Your task to perform on an android device: toggle translation in the chrome app Image 0: 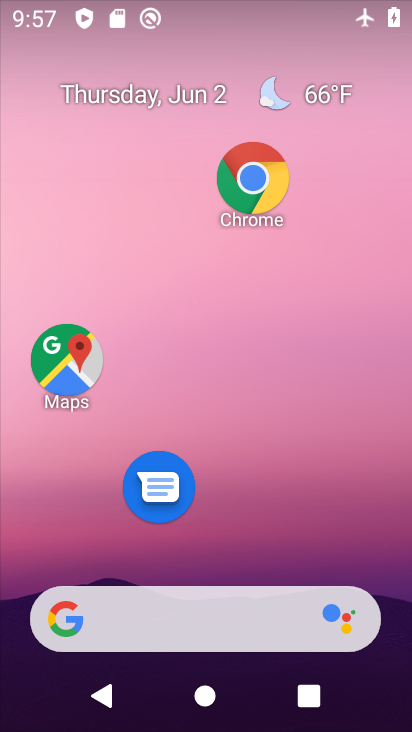
Step 0: click (254, 180)
Your task to perform on an android device: toggle translation in the chrome app Image 1: 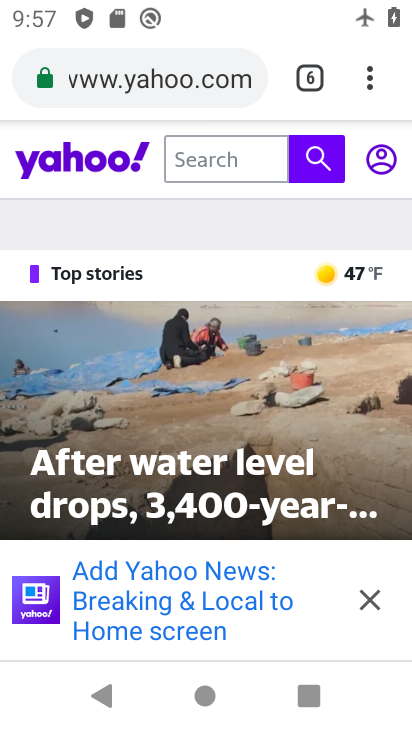
Step 1: click (368, 83)
Your task to perform on an android device: toggle translation in the chrome app Image 2: 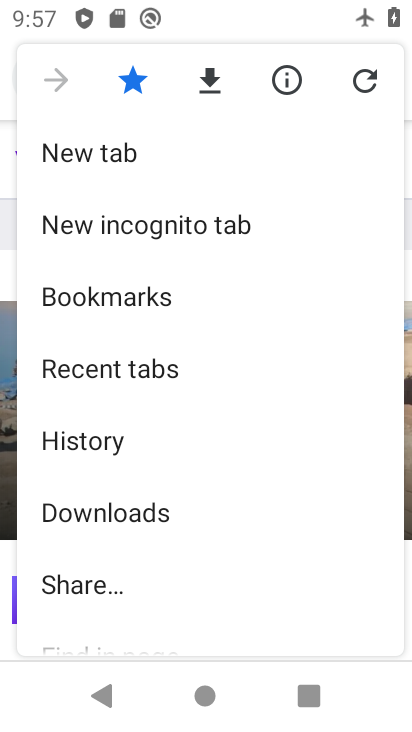
Step 2: drag from (147, 616) to (171, 219)
Your task to perform on an android device: toggle translation in the chrome app Image 3: 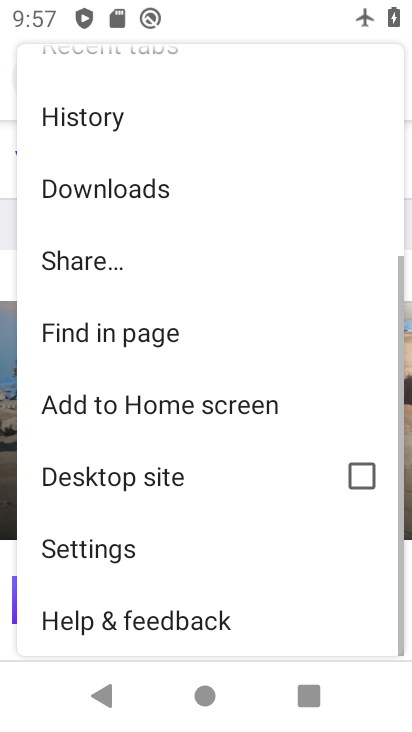
Step 3: click (107, 546)
Your task to perform on an android device: toggle translation in the chrome app Image 4: 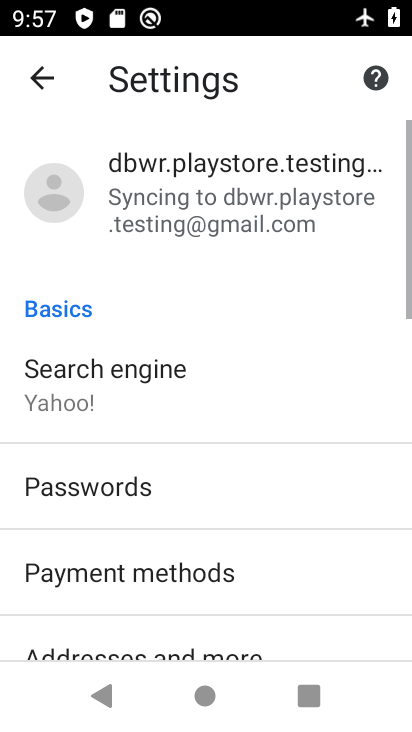
Step 4: drag from (201, 632) to (217, 207)
Your task to perform on an android device: toggle translation in the chrome app Image 5: 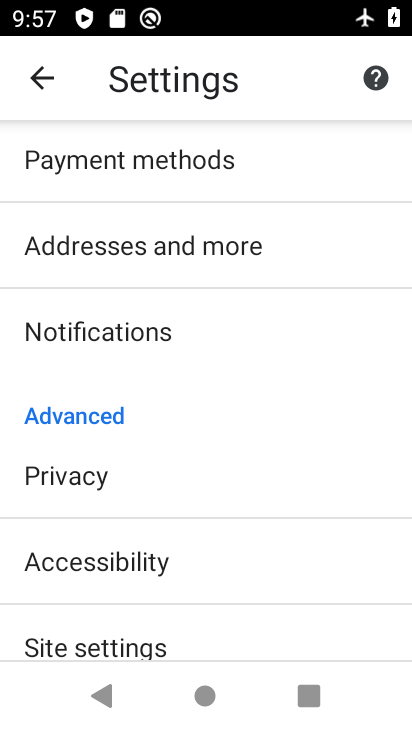
Step 5: drag from (164, 643) to (184, 281)
Your task to perform on an android device: toggle translation in the chrome app Image 6: 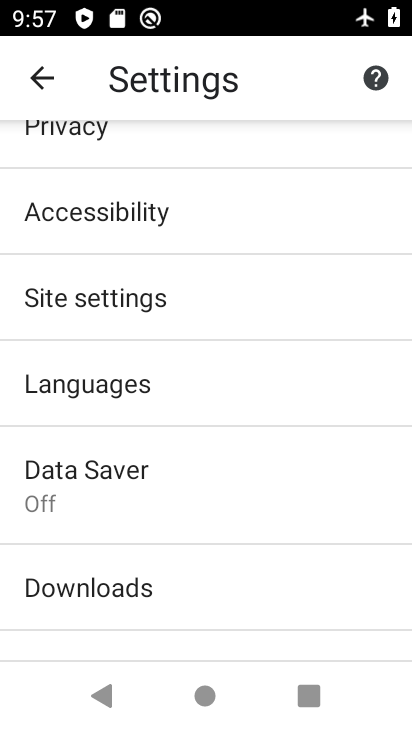
Step 6: click (103, 382)
Your task to perform on an android device: toggle translation in the chrome app Image 7: 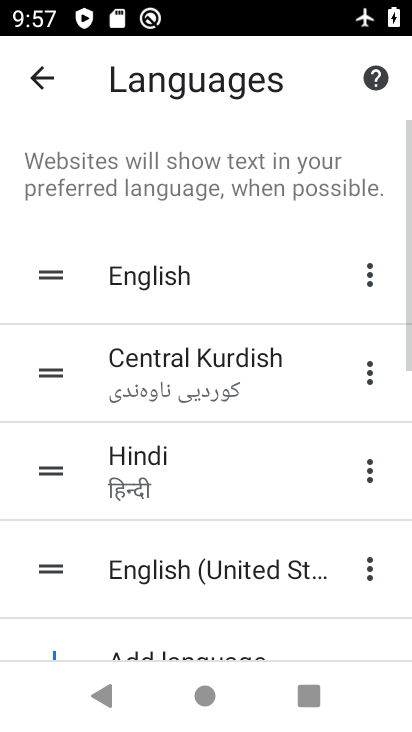
Step 7: drag from (208, 637) to (216, 243)
Your task to perform on an android device: toggle translation in the chrome app Image 8: 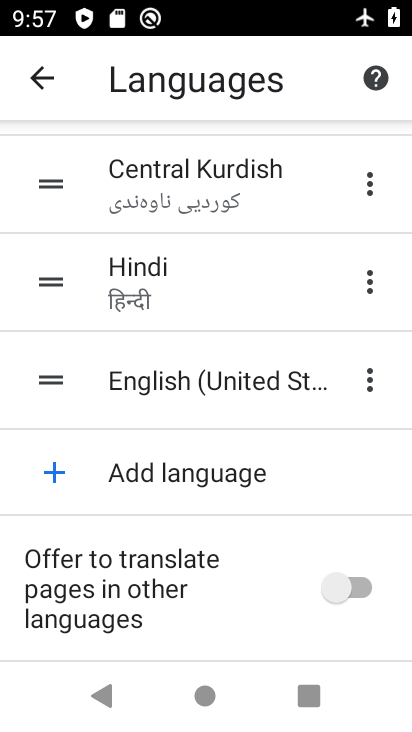
Step 8: click (360, 582)
Your task to perform on an android device: toggle translation in the chrome app Image 9: 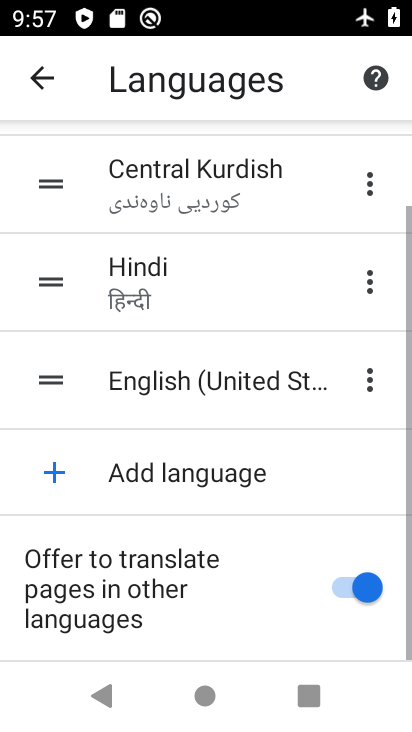
Step 9: task complete